Your task to perform on an android device: Do I have any events tomorrow? Image 0: 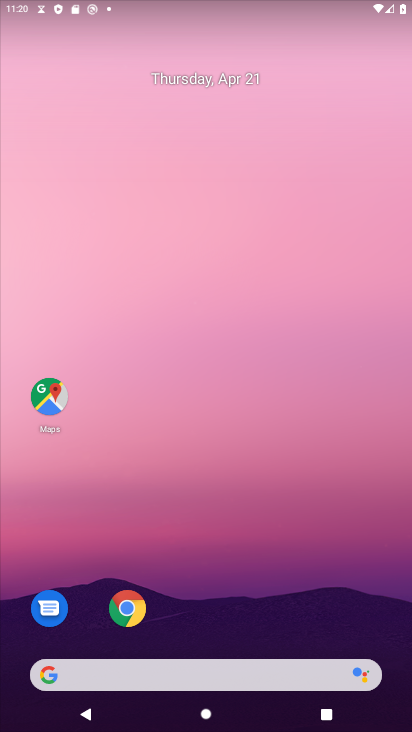
Step 0: drag from (207, 580) to (199, 271)
Your task to perform on an android device: Do I have any events tomorrow? Image 1: 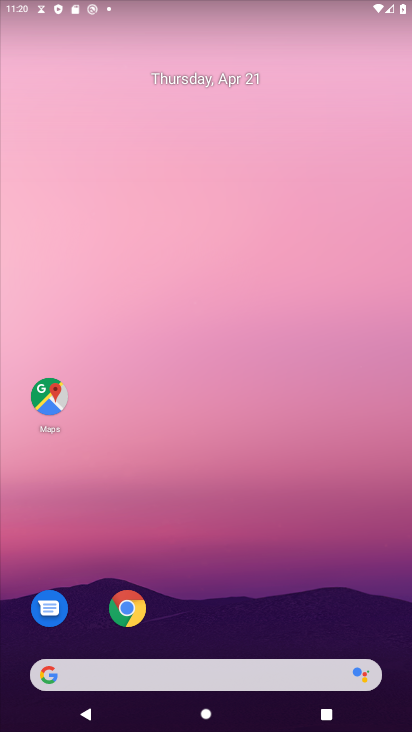
Step 1: drag from (185, 549) to (184, 152)
Your task to perform on an android device: Do I have any events tomorrow? Image 2: 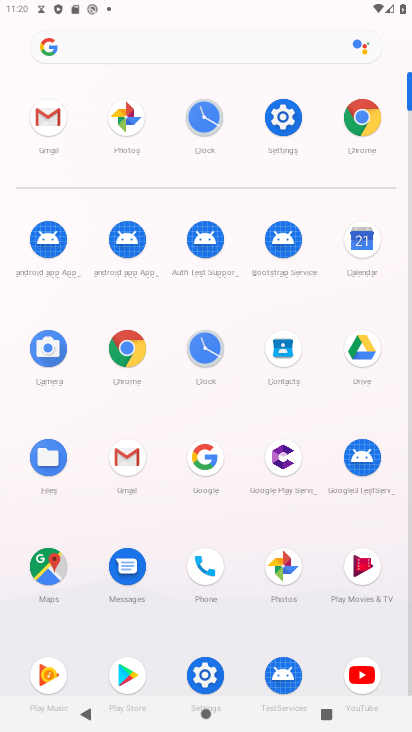
Step 2: click (356, 230)
Your task to perform on an android device: Do I have any events tomorrow? Image 3: 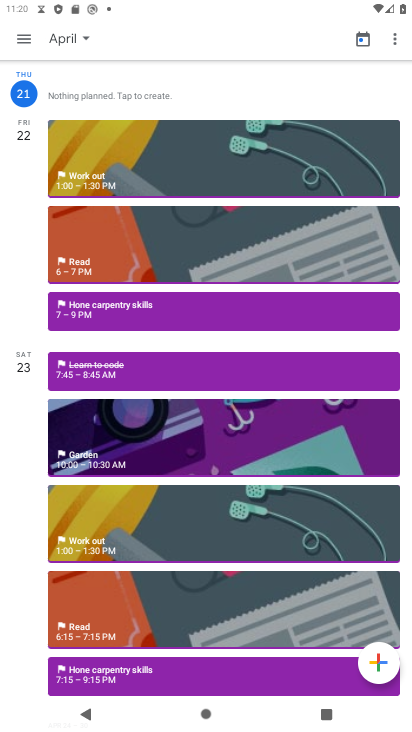
Step 3: task complete